Your task to perform on an android device: delete browsing data in the chrome app Image 0: 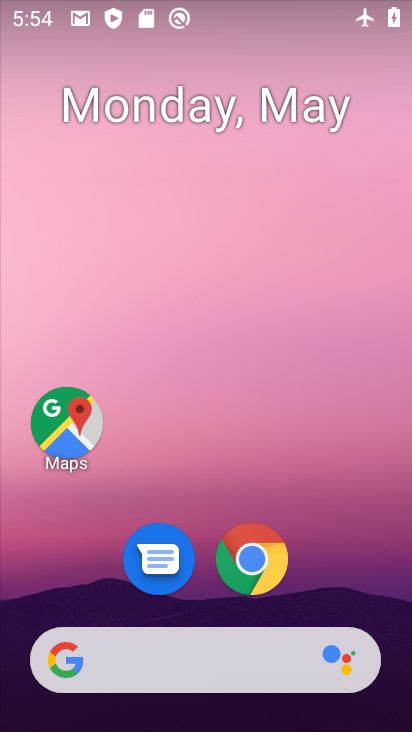
Step 0: click (261, 560)
Your task to perform on an android device: delete browsing data in the chrome app Image 1: 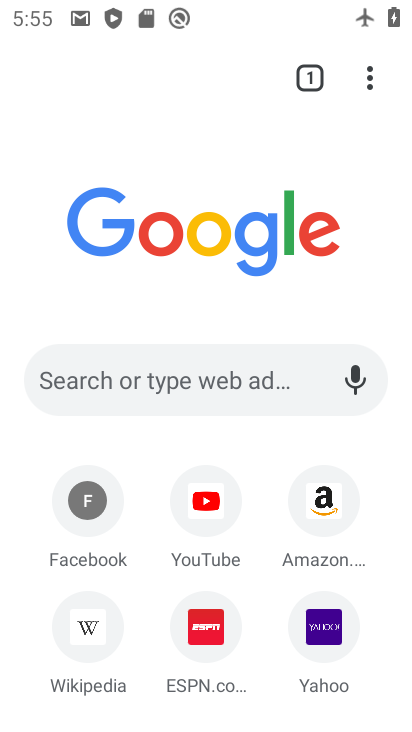
Step 1: click (371, 76)
Your task to perform on an android device: delete browsing data in the chrome app Image 2: 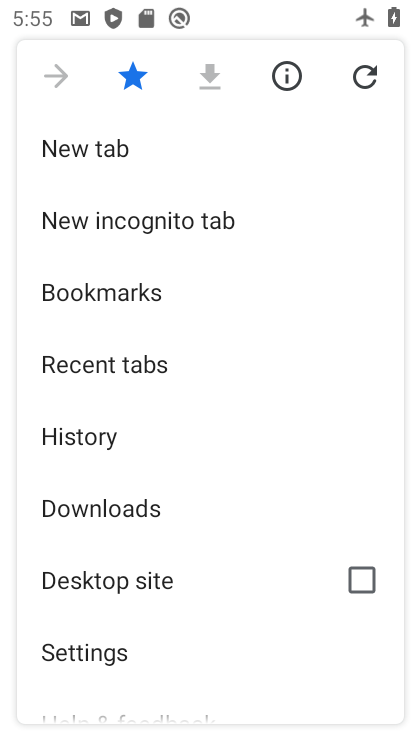
Step 2: click (86, 431)
Your task to perform on an android device: delete browsing data in the chrome app Image 3: 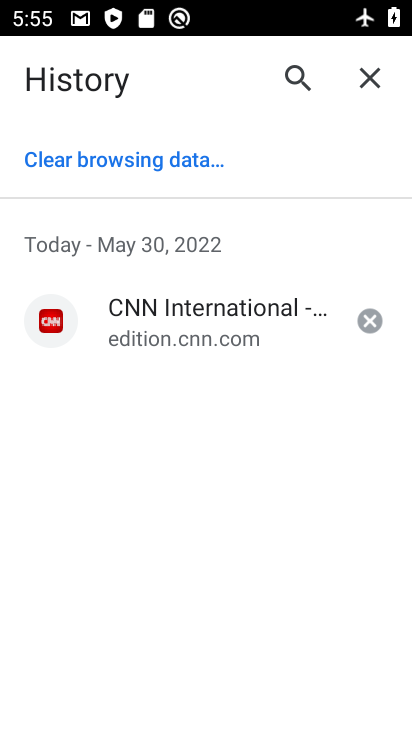
Step 3: click (110, 158)
Your task to perform on an android device: delete browsing data in the chrome app Image 4: 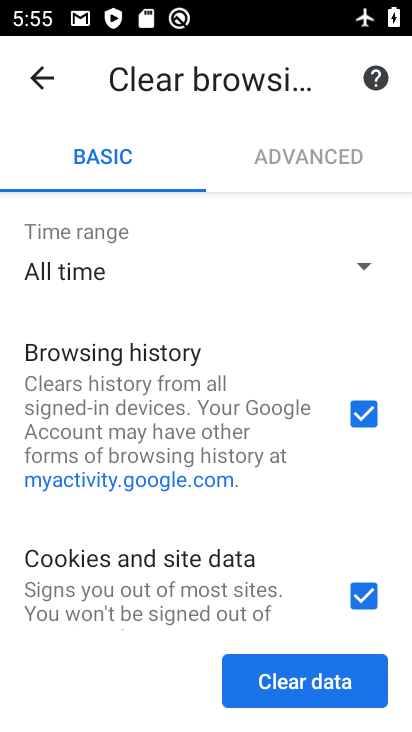
Step 4: click (310, 686)
Your task to perform on an android device: delete browsing data in the chrome app Image 5: 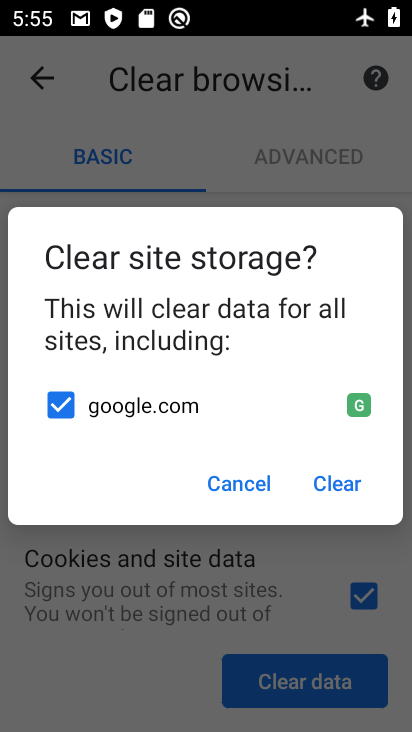
Step 5: click (345, 491)
Your task to perform on an android device: delete browsing data in the chrome app Image 6: 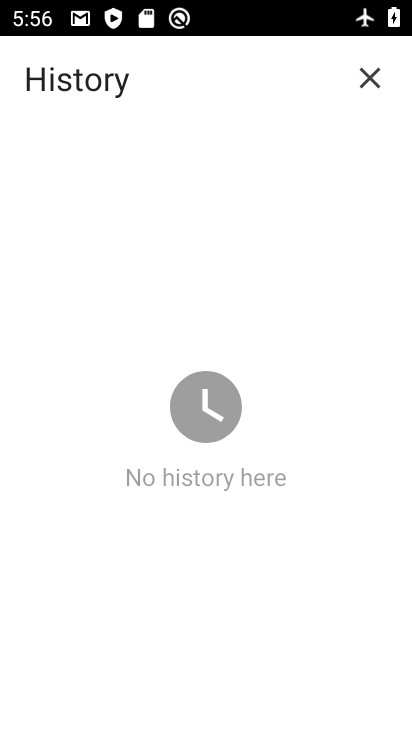
Step 6: task complete